Your task to perform on an android device: turn on the 24-hour format for clock Image 0: 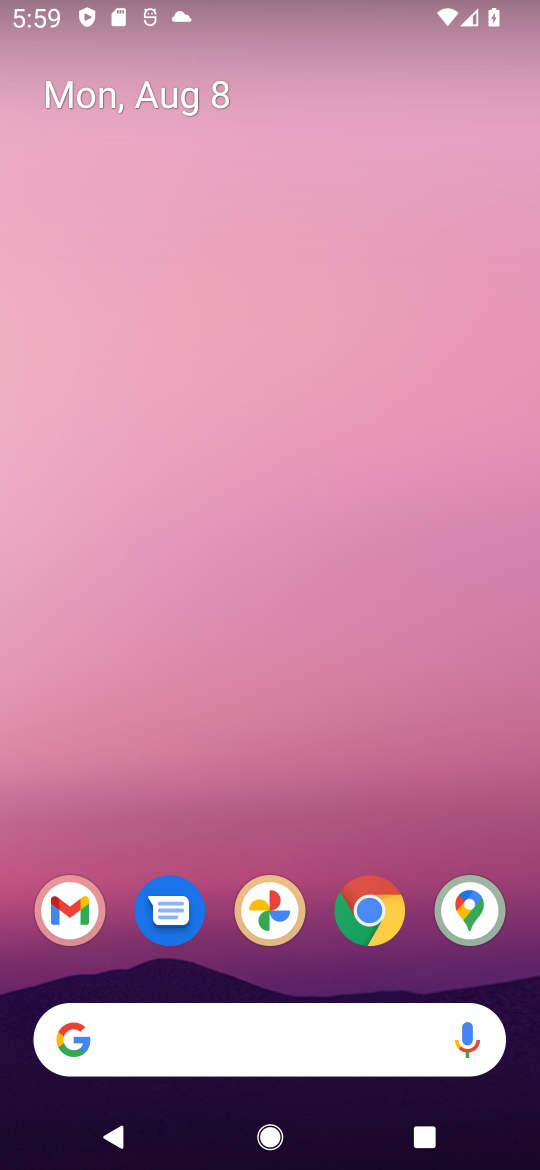
Step 0: drag from (267, 960) to (316, 342)
Your task to perform on an android device: turn on the 24-hour format for clock Image 1: 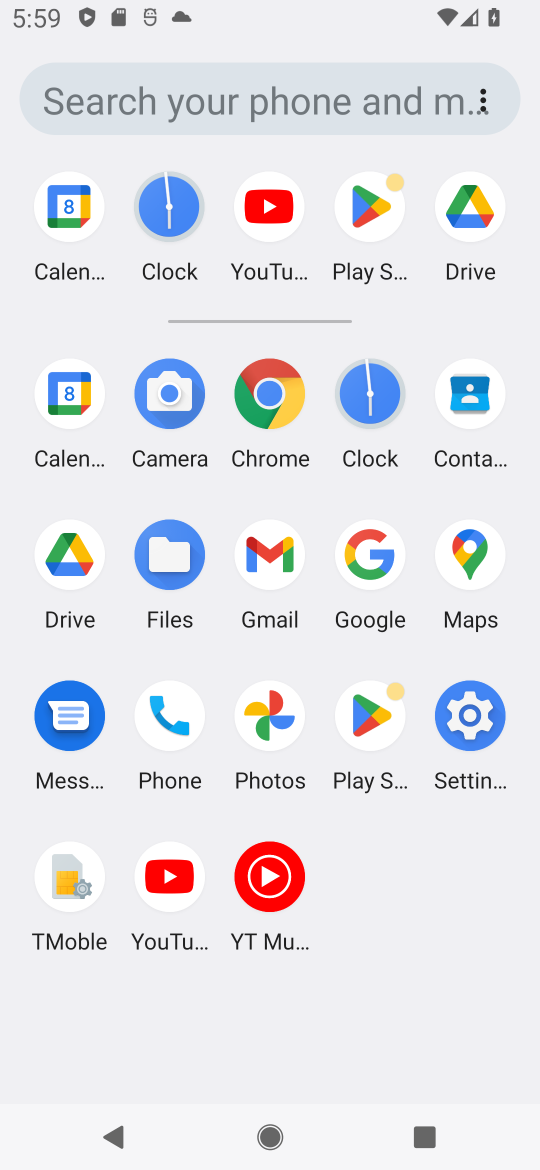
Step 1: click (170, 206)
Your task to perform on an android device: turn on the 24-hour format for clock Image 2: 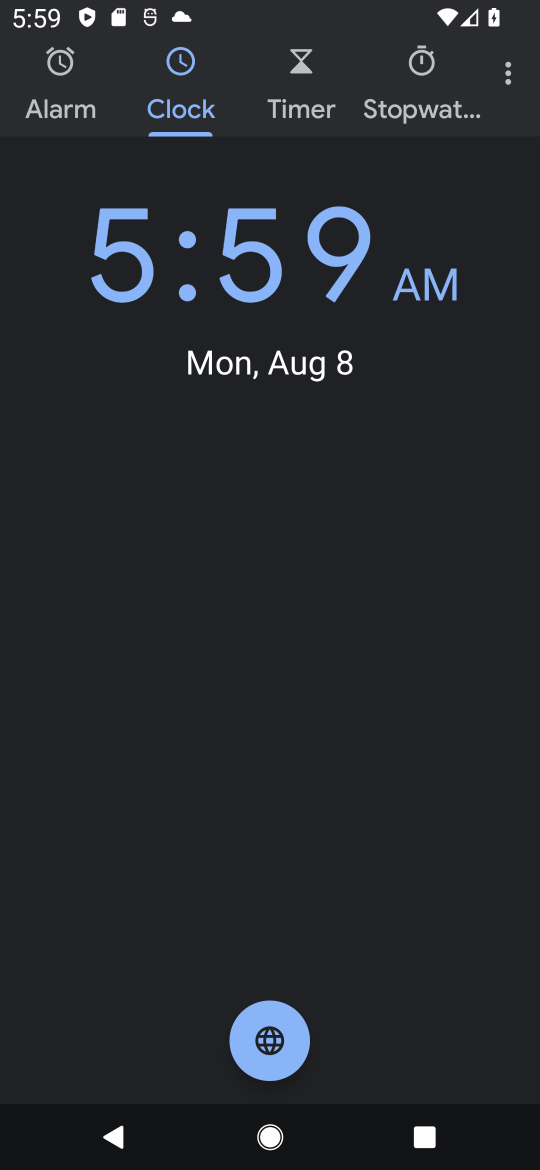
Step 2: click (508, 78)
Your task to perform on an android device: turn on the 24-hour format for clock Image 3: 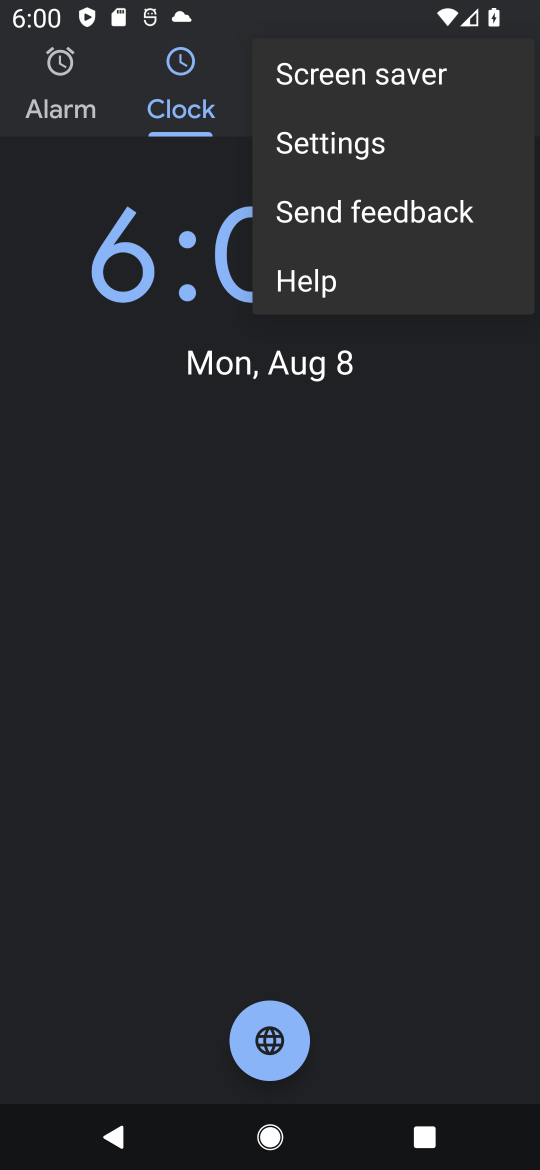
Step 3: click (374, 139)
Your task to perform on an android device: turn on the 24-hour format for clock Image 4: 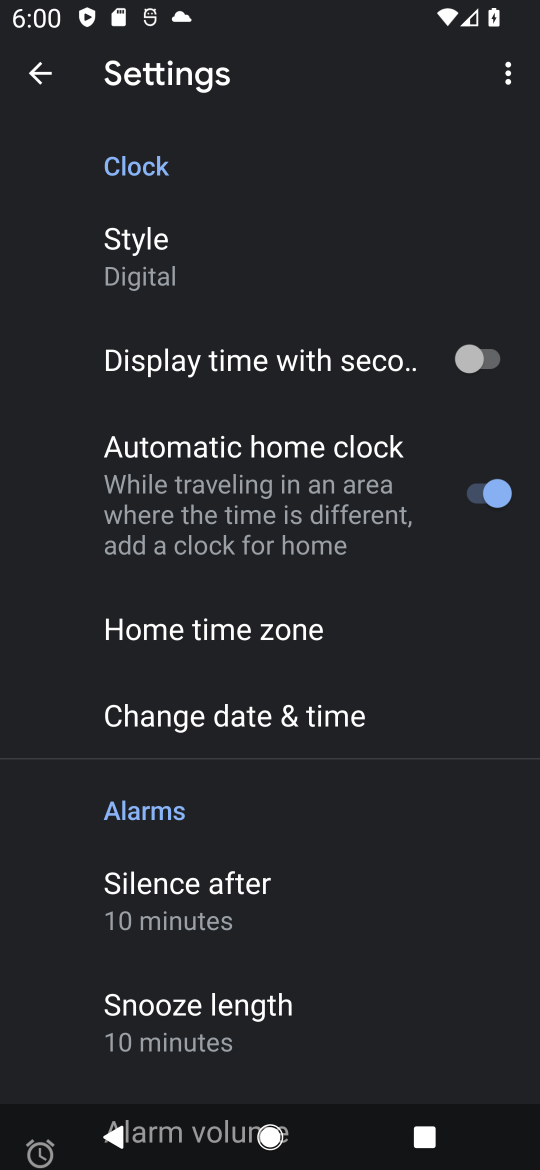
Step 4: click (217, 716)
Your task to perform on an android device: turn on the 24-hour format for clock Image 5: 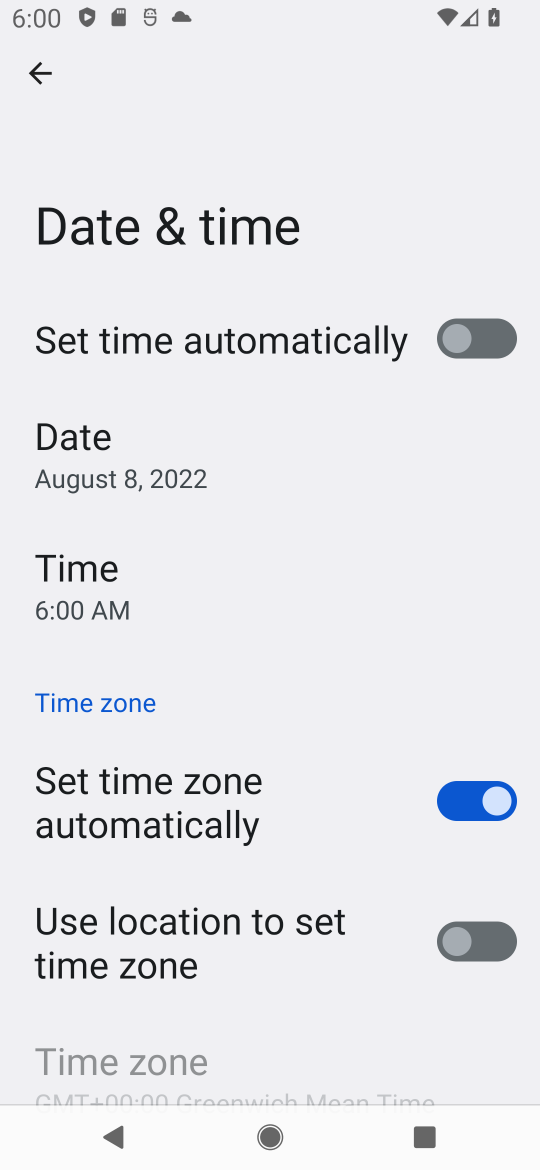
Step 5: drag from (178, 823) to (247, 516)
Your task to perform on an android device: turn on the 24-hour format for clock Image 6: 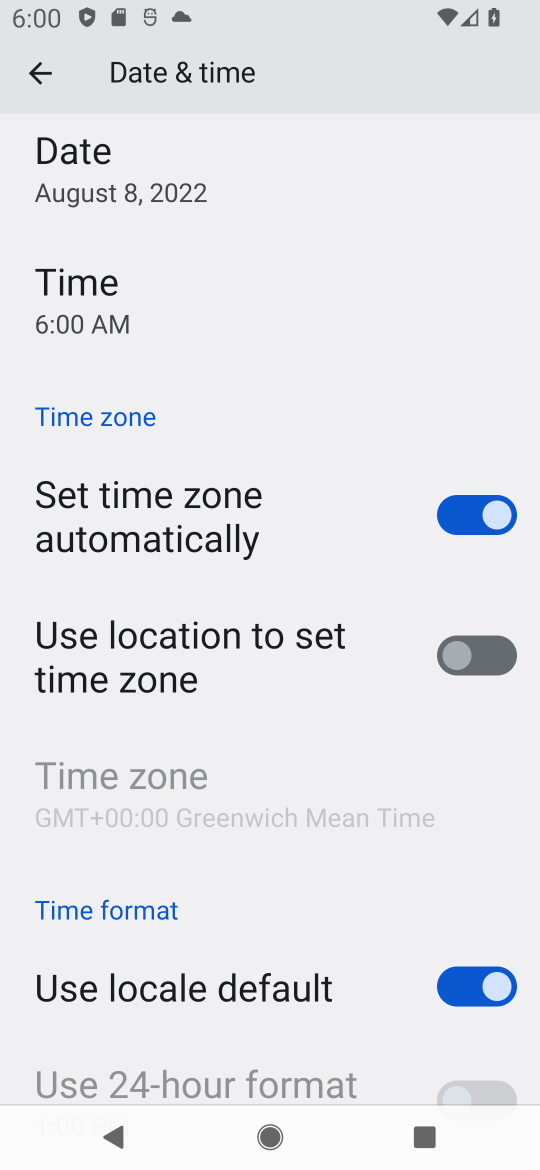
Step 6: drag from (198, 856) to (267, 651)
Your task to perform on an android device: turn on the 24-hour format for clock Image 7: 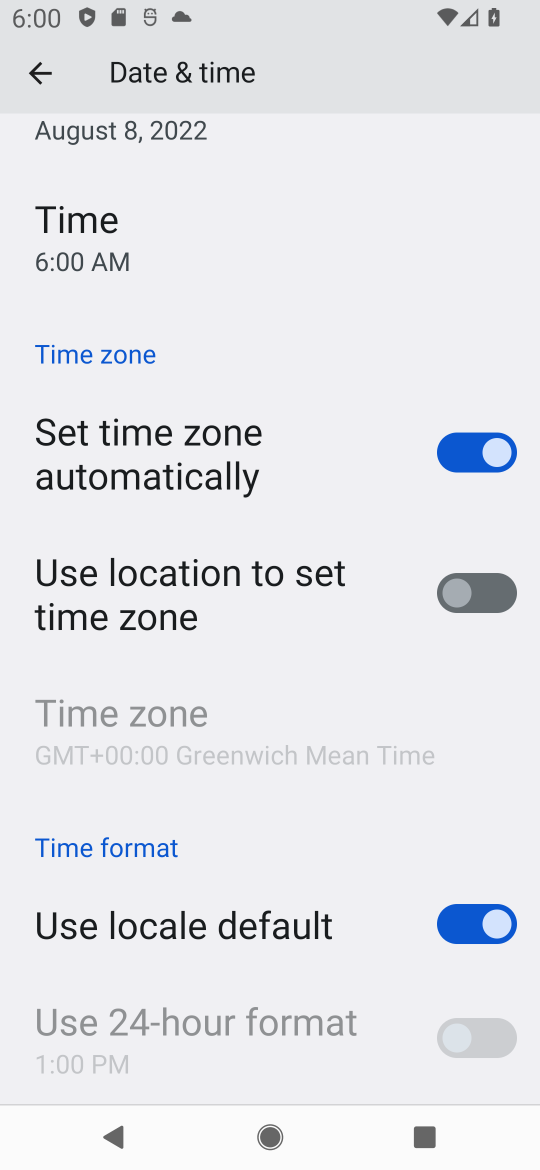
Step 7: click (444, 911)
Your task to perform on an android device: turn on the 24-hour format for clock Image 8: 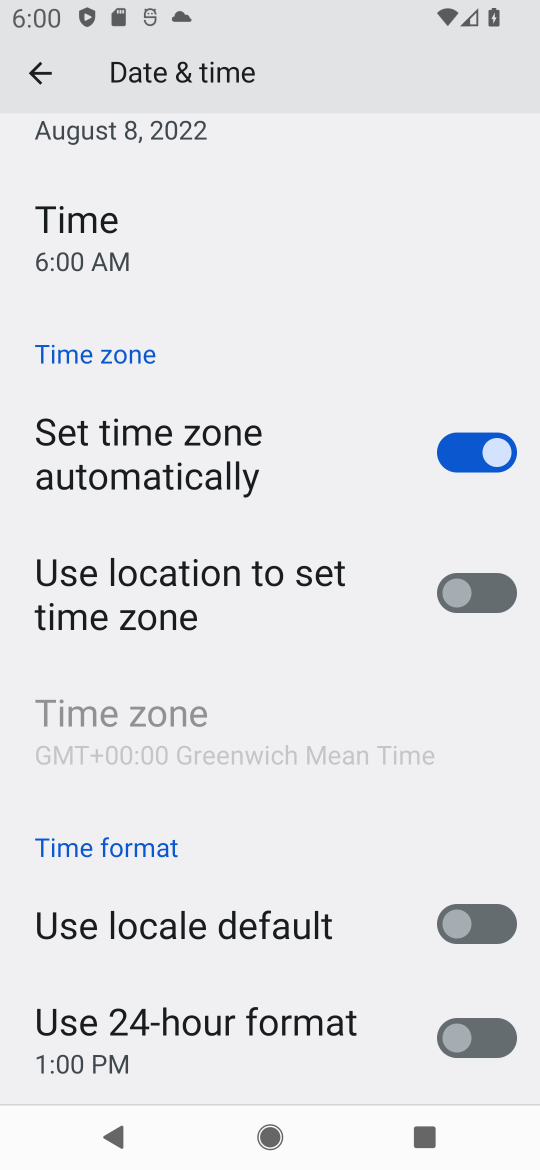
Step 8: click (472, 1027)
Your task to perform on an android device: turn on the 24-hour format for clock Image 9: 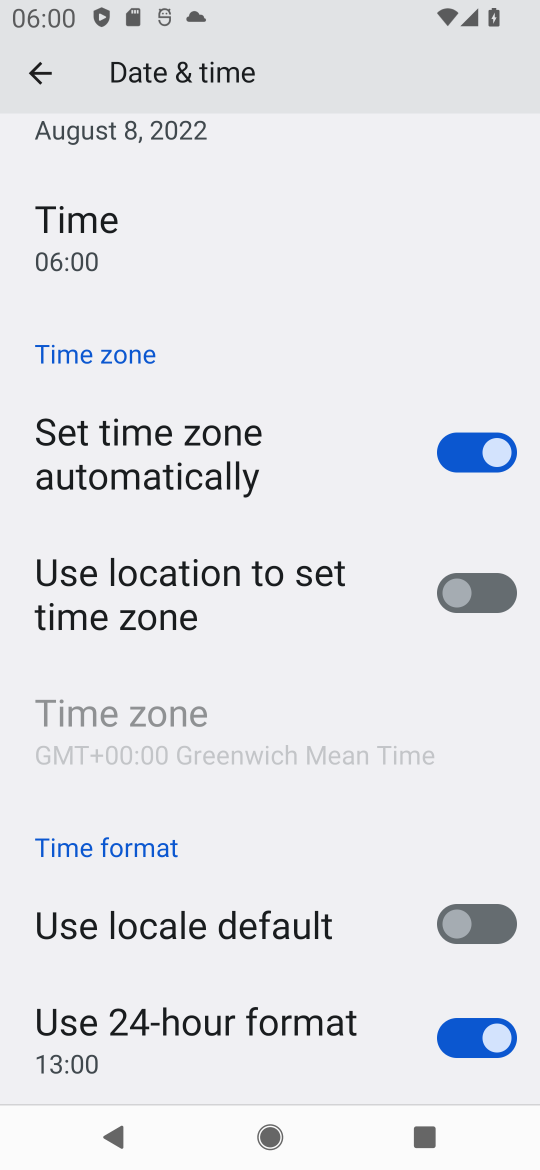
Step 9: task complete